Your task to perform on an android device: Open Wikipedia Image 0: 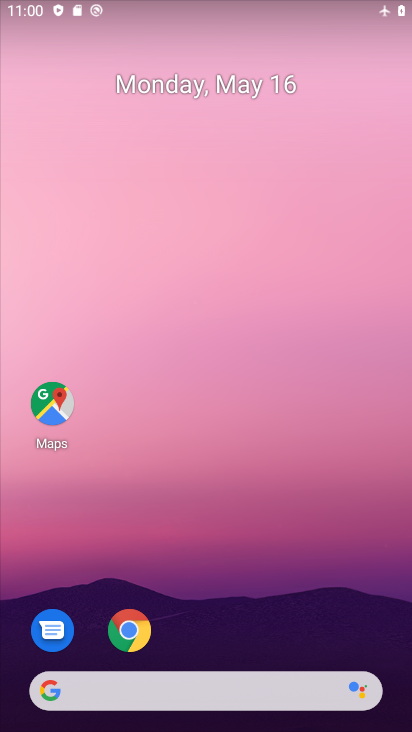
Step 0: click (135, 627)
Your task to perform on an android device: Open Wikipedia Image 1: 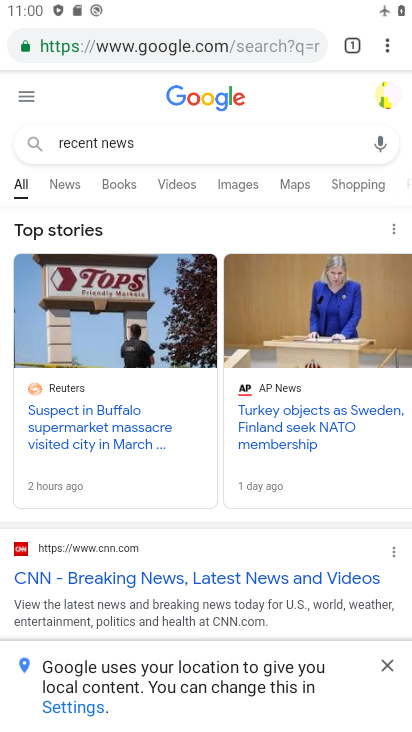
Step 1: click (360, 40)
Your task to perform on an android device: Open Wikipedia Image 2: 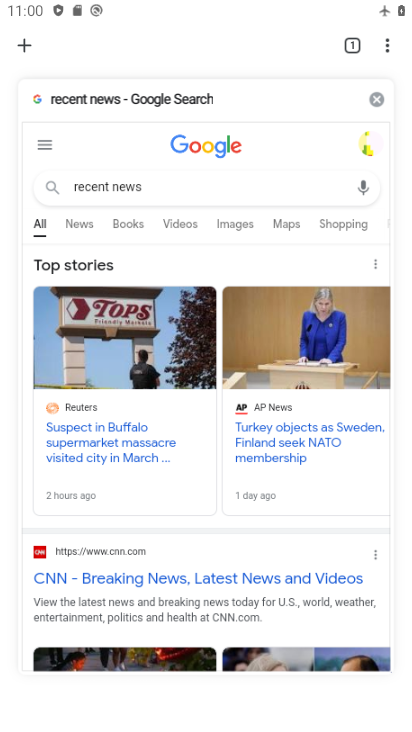
Step 2: click (20, 43)
Your task to perform on an android device: Open Wikipedia Image 3: 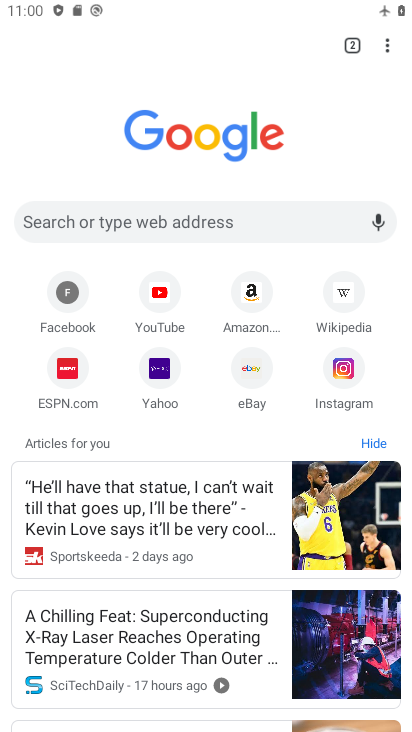
Step 3: click (328, 293)
Your task to perform on an android device: Open Wikipedia Image 4: 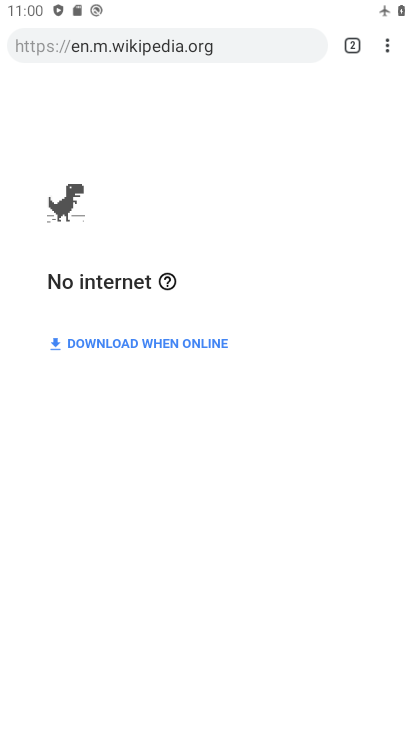
Step 4: task complete